Your task to perform on an android device: What's the weather? Image 0: 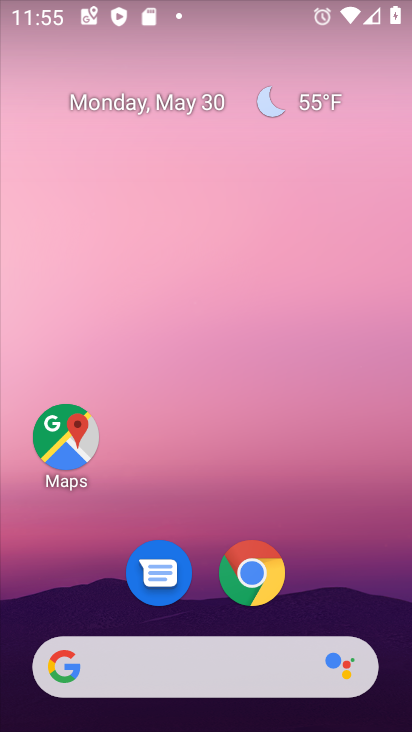
Step 0: click (179, 683)
Your task to perform on an android device: What's the weather? Image 1: 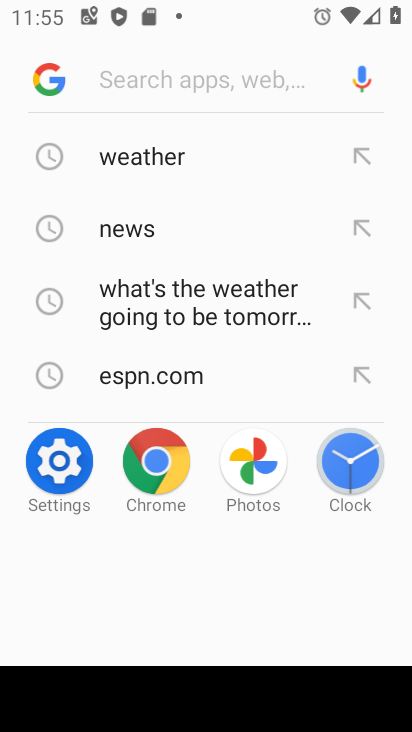
Step 1: click (151, 158)
Your task to perform on an android device: What's the weather? Image 2: 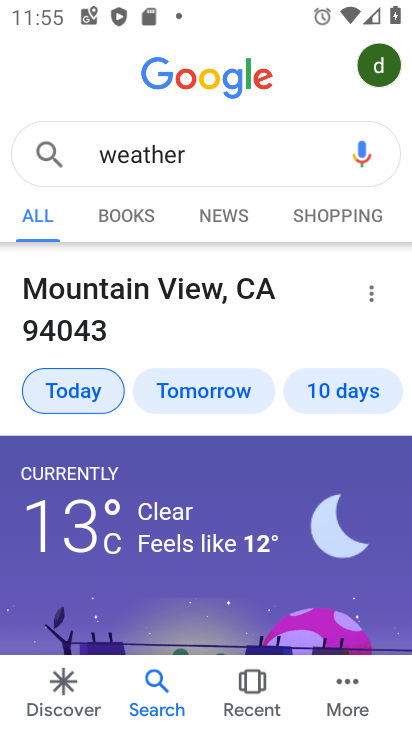
Step 2: task complete